Your task to perform on an android device: snooze an email in the gmail app Image 0: 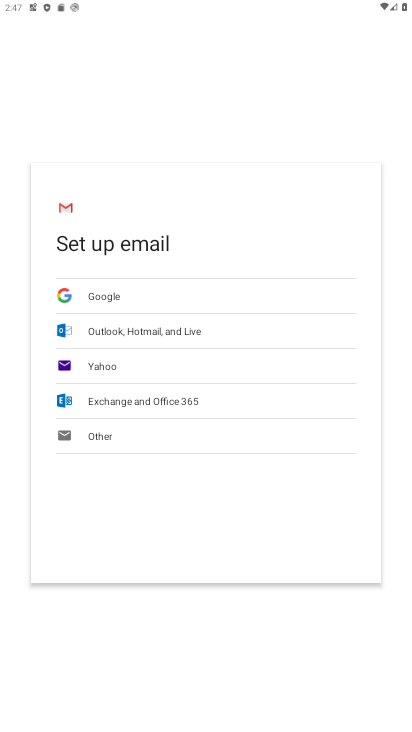
Step 0: press back button
Your task to perform on an android device: snooze an email in the gmail app Image 1: 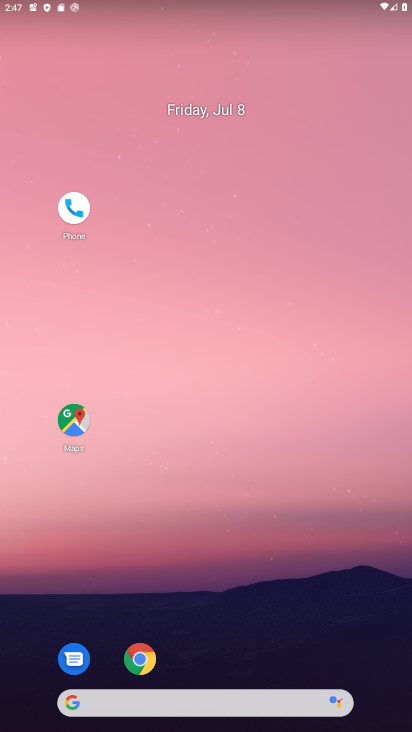
Step 1: drag from (251, 233) to (219, 60)
Your task to perform on an android device: snooze an email in the gmail app Image 2: 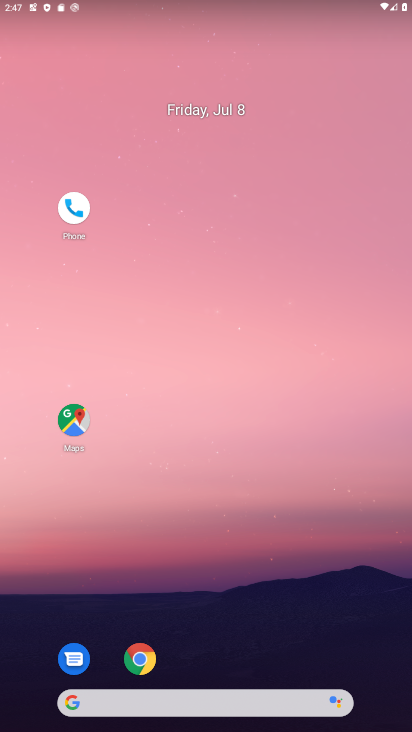
Step 2: drag from (243, 725) to (227, 201)
Your task to perform on an android device: snooze an email in the gmail app Image 3: 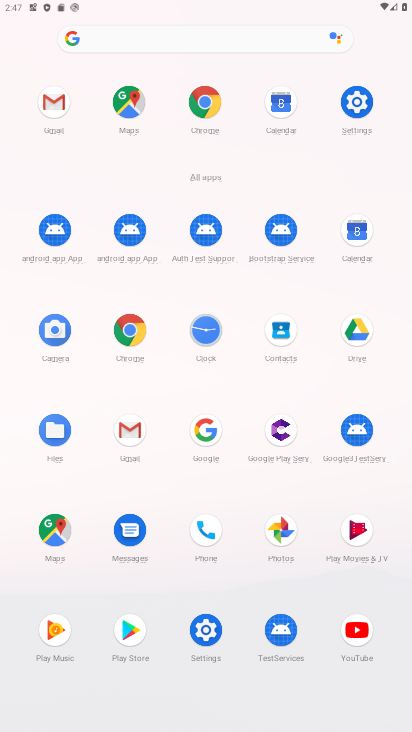
Step 3: drag from (117, 433) to (148, 418)
Your task to perform on an android device: snooze an email in the gmail app Image 4: 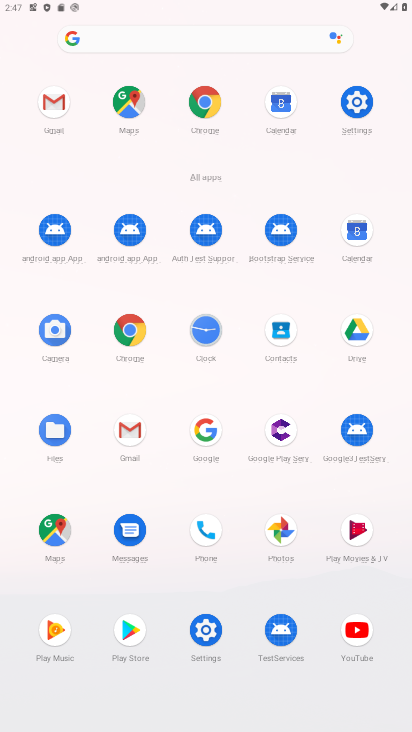
Step 4: click (132, 424)
Your task to perform on an android device: snooze an email in the gmail app Image 5: 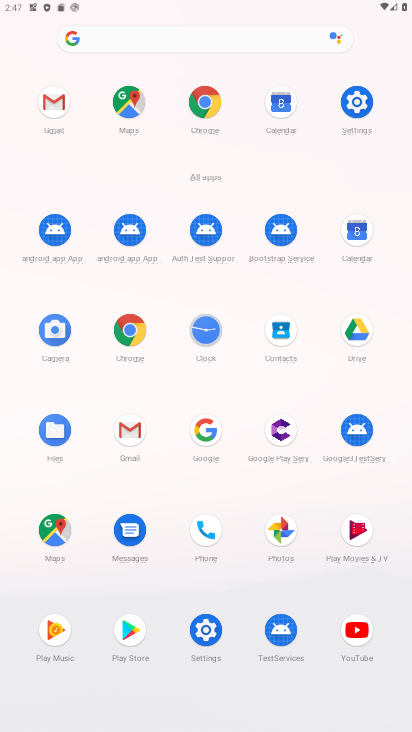
Step 5: click (137, 423)
Your task to perform on an android device: snooze an email in the gmail app Image 6: 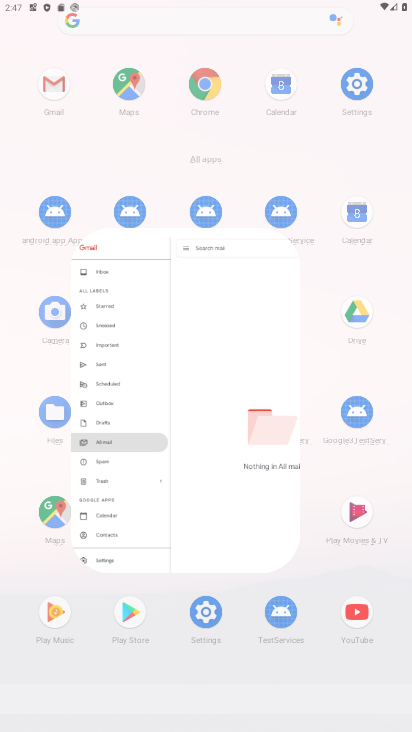
Step 6: click (146, 417)
Your task to perform on an android device: snooze an email in the gmail app Image 7: 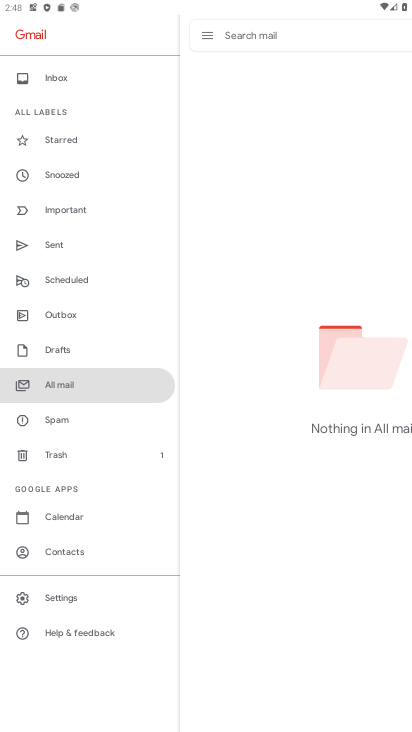
Step 7: click (59, 172)
Your task to perform on an android device: snooze an email in the gmail app Image 8: 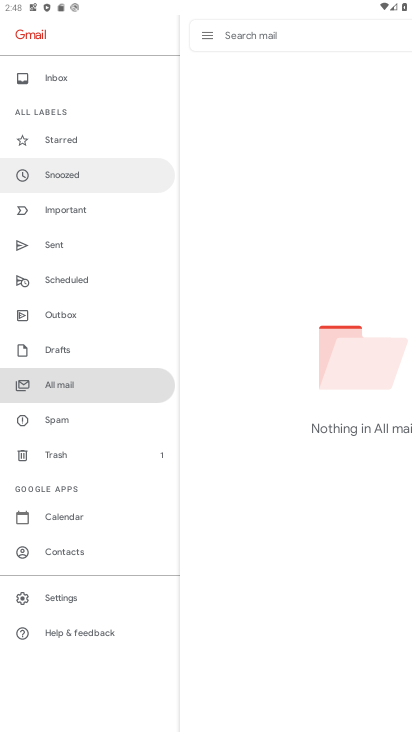
Step 8: click (59, 172)
Your task to perform on an android device: snooze an email in the gmail app Image 9: 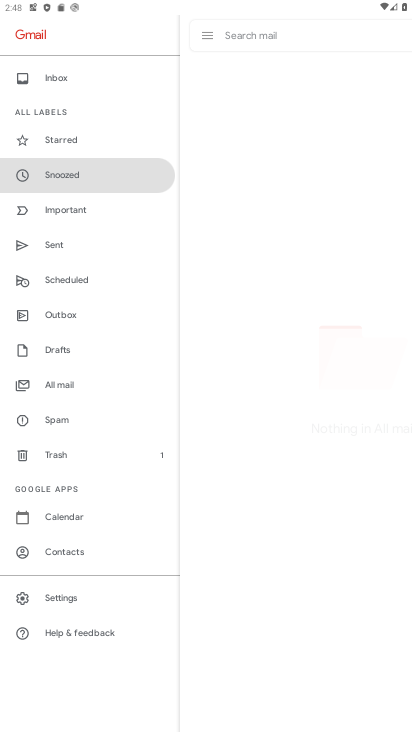
Step 9: click (60, 172)
Your task to perform on an android device: snooze an email in the gmail app Image 10: 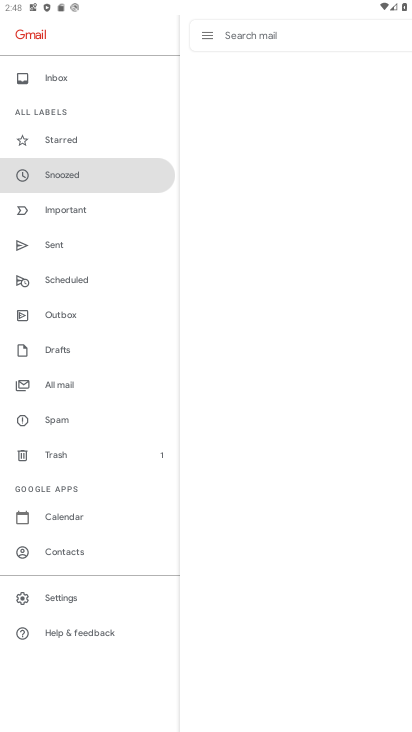
Step 10: click (61, 172)
Your task to perform on an android device: snooze an email in the gmail app Image 11: 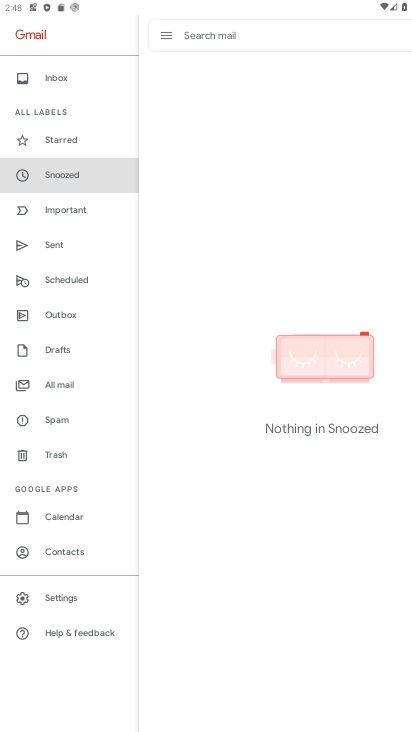
Step 11: click (67, 163)
Your task to perform on an android device: snooze an email in the gmail app Image 12: 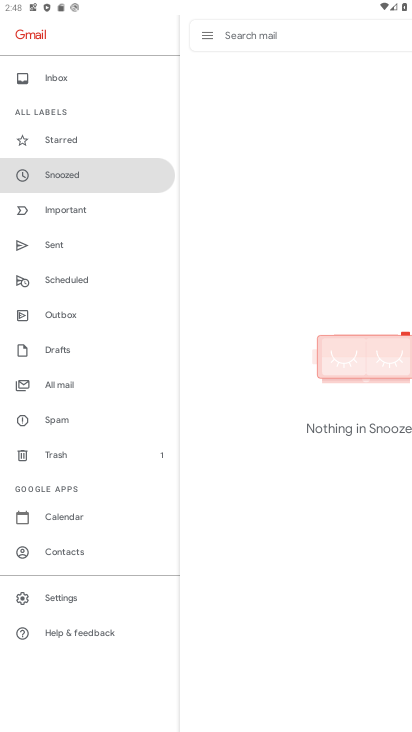
Step 12: task complete